Your task to perform on an android device: Go to battery settings Image 0: 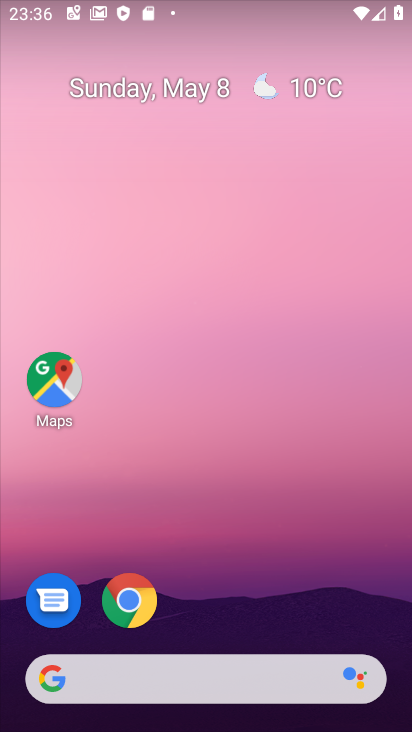
Step 0: drag from (242, 631) to (235, 256)
Your task to perform on an android device: Go to battery settings Image 1: 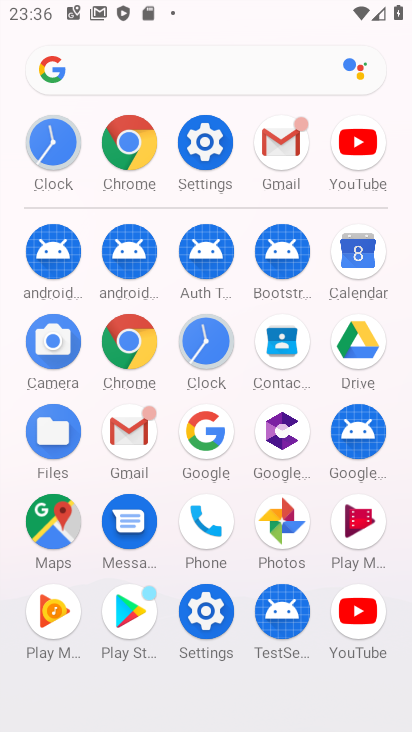
Step 1: click (192, 148)
Your task to perform on an android device: Go to battery settings Image 2: 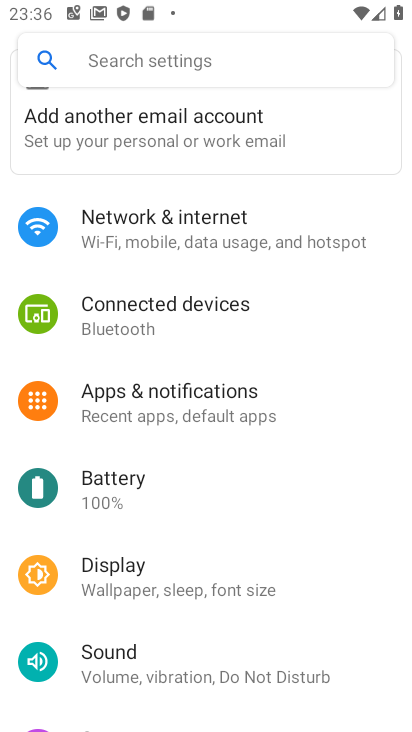
Step 2: click (183, 486)
Your task to perform on an android device: Go to battery settings Image 3: 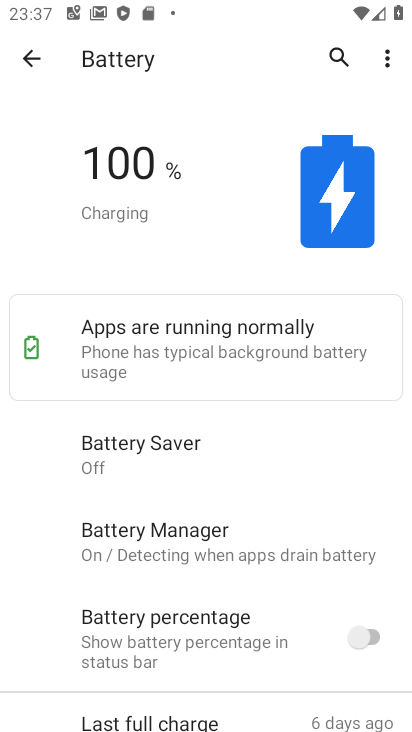
Step 3: task complete